Your task to perform on an android device: Do I have any events tomorrow? Image 0: 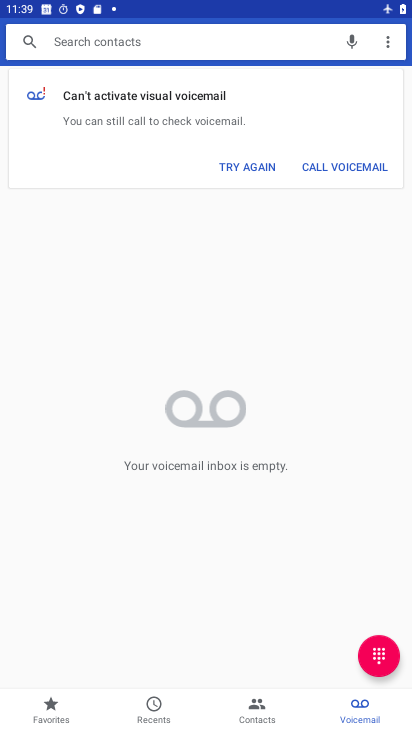
Step 0: press home button
Your task to perform on an android device: Do I have any events tomorrow? Image 1: 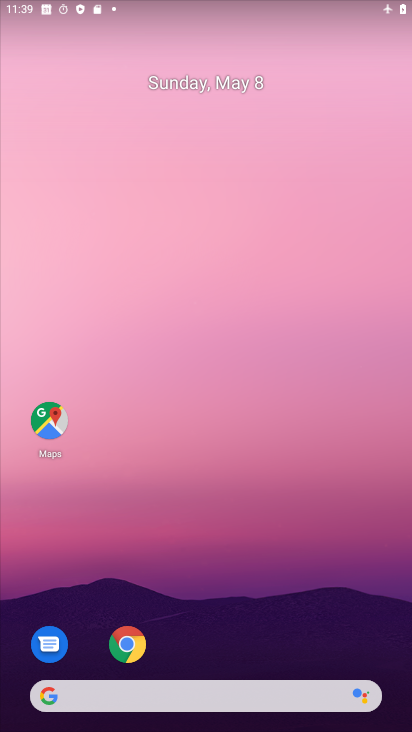
Step 1: drag from (231, 635) to (173, 125)
Your task to perform on an android device: Do I have any events tomorrow? Image 2: 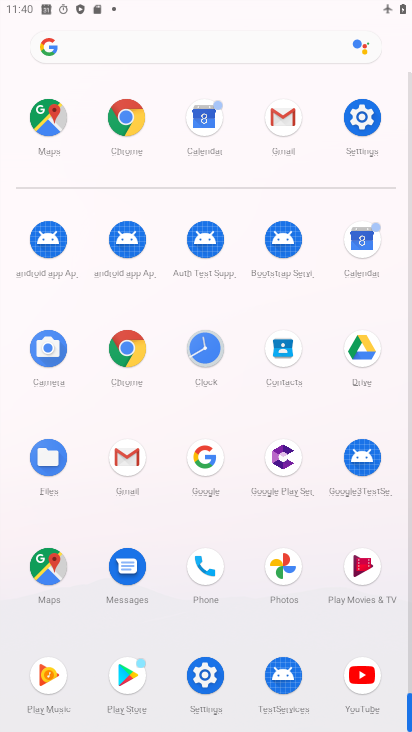
Step 2: drag from (184, 647) to (158, 129)
Your task to perform on an android device: Do I have any events tomorrow? Image 3: 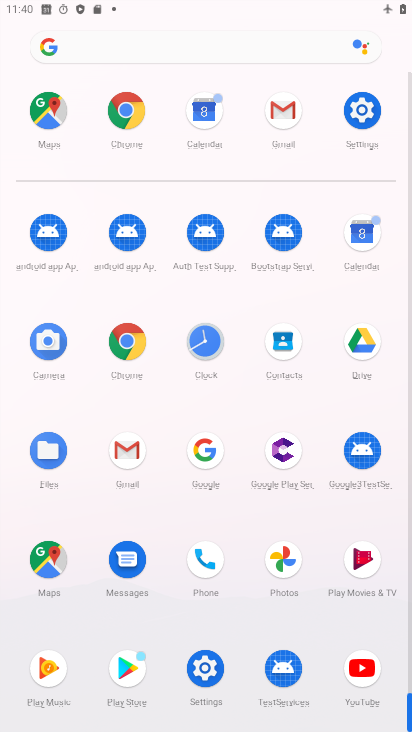
Step 3: drag from (163, 625) to (163, 233)
Your task to perform on an android device: Do I have any events tomorrow? Image 4: 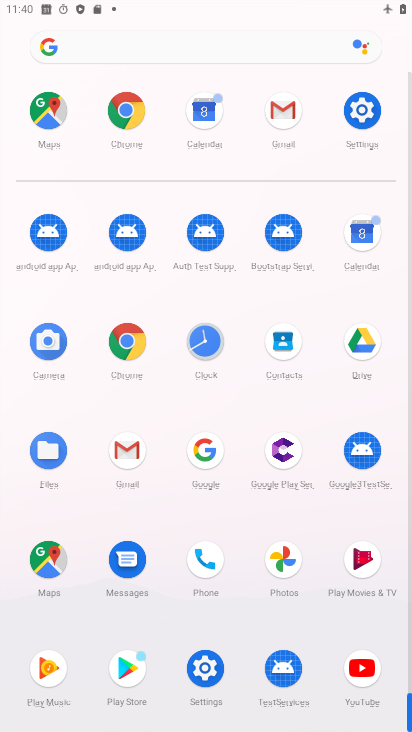
Step 4: click (343, 225)
Your task to perform on an android device: Do I have any events tomorrow? Image 5: 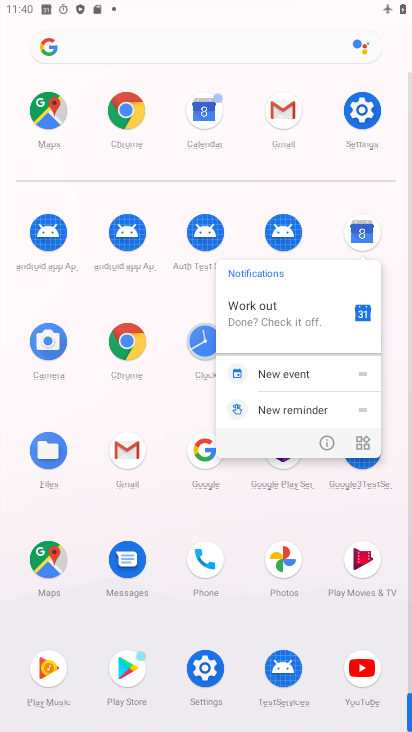
Step 5: click (320, 452)
Your task to perform on an android device: Do I have any events tomorrow? Image 6: 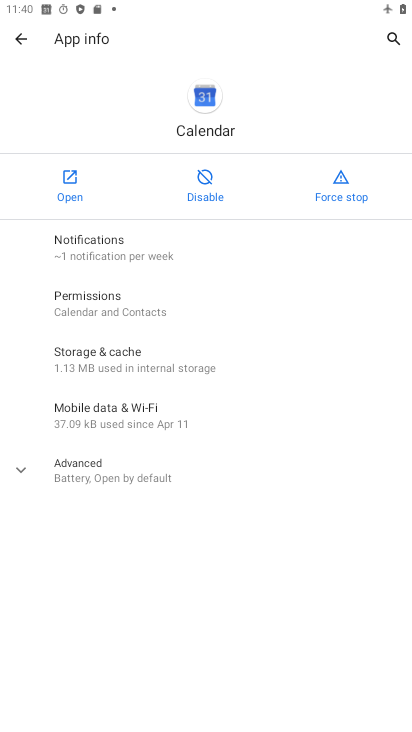
Step 6: click (71, 182)
Your task to perform on an android device: Do I have any events tomorrow? Image 7: 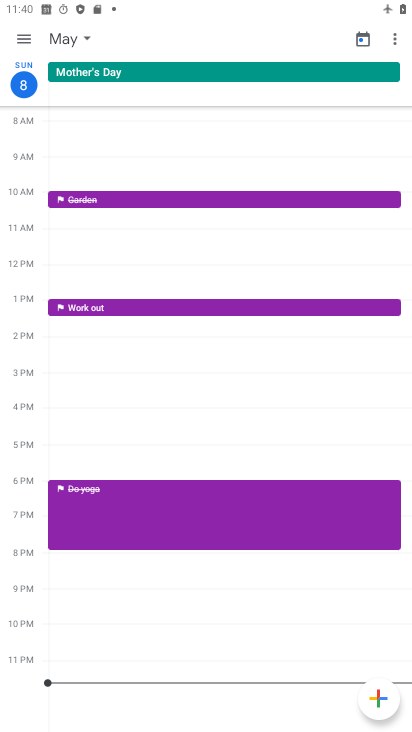
Step 7: drag from (144, 679) to (222, 304)
Your task to perform on an android device: Do I have any events tomorrow? Image 8: 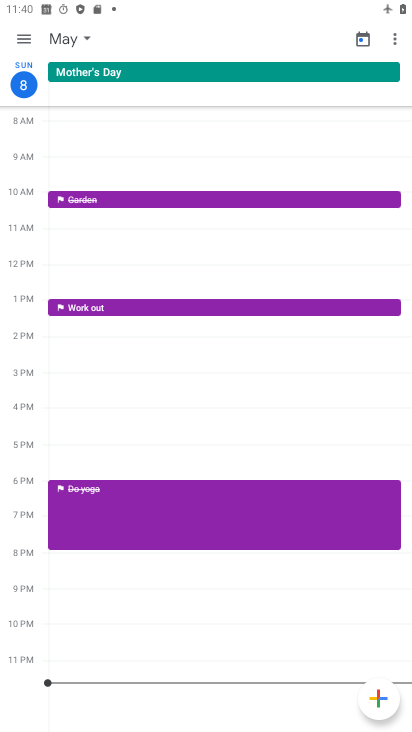
Step 8: click (69, 43)
Your task to perform on an android device: Do I have any events tomorrow? Image 9: 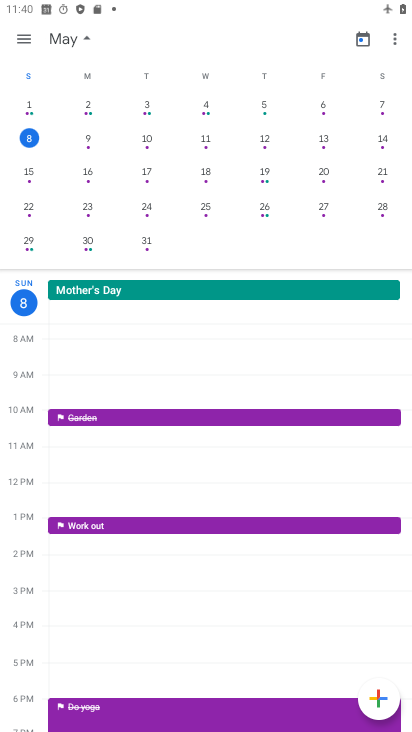
Step 9: click (90, 135)
Your task to perform on an android device: Do I have any events tomorrow? Image 10: 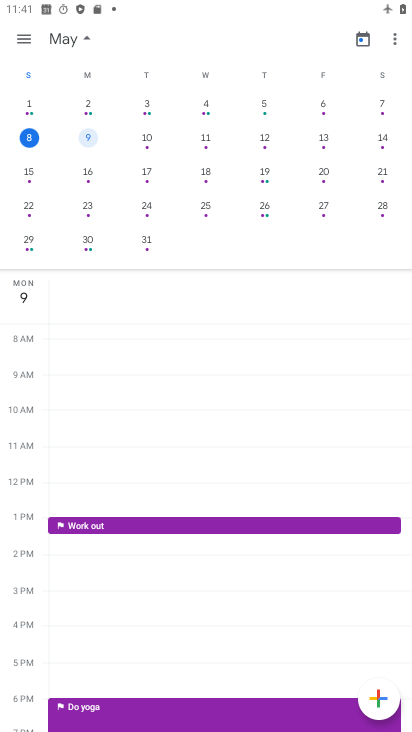
Step 10: click (88, 140)
Your task to perform on an android device: Do I have any events tomorrow? Image 11: 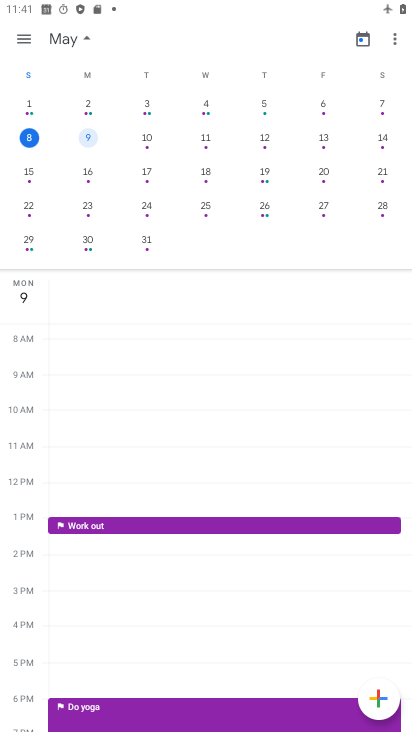
Step 11: task complete